Your task to perform on an android device: turn on airplane mode Image 0: 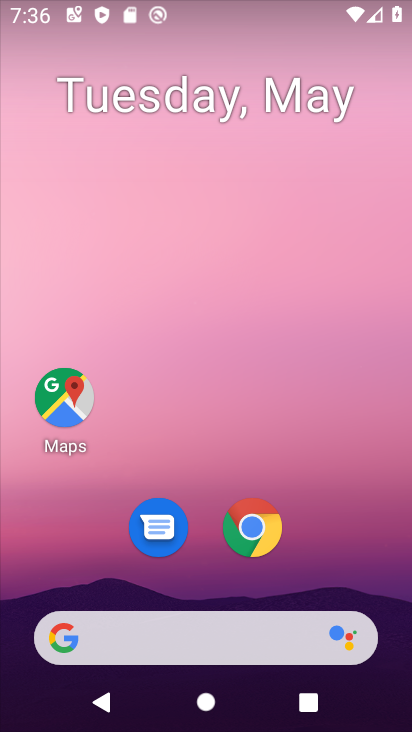
Step 0: drag from (327, 551) to (217, 165)
Your task to perform on an android device: turn on airplane mode Image 1: 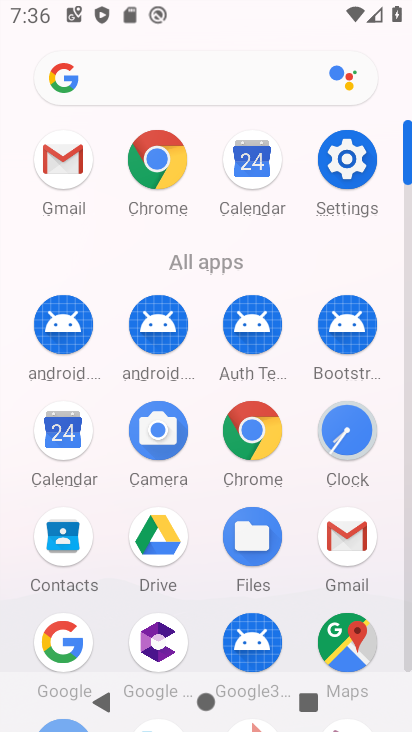
Step 1: click (345, 161)
Your task to perform on an android device: turn on airplane mode Image 2: 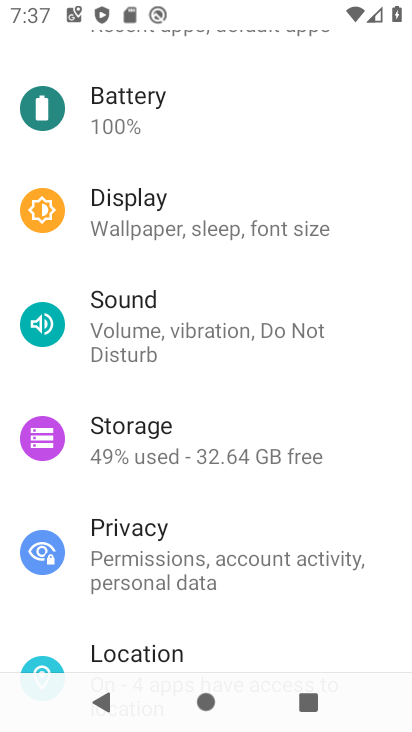
Step 2: drag from (222, 289) to (216, 383)
Your task to perform on an android device: turn on airplane mode Image 3: 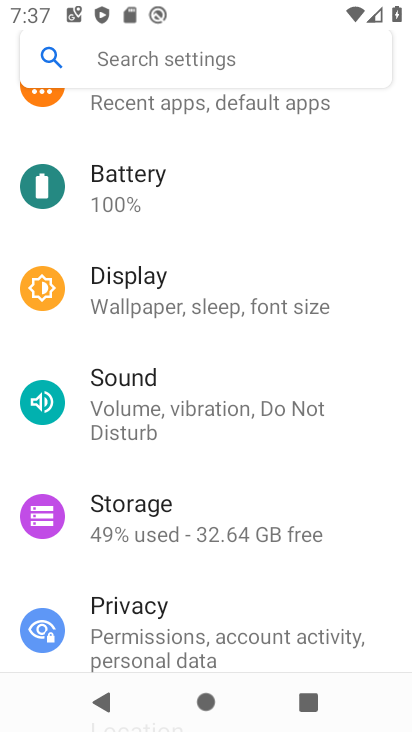
Step 3: drag from (223, 226) to (234, 328)
Your task to perform on an android device: turn on airplane mode Image 4: 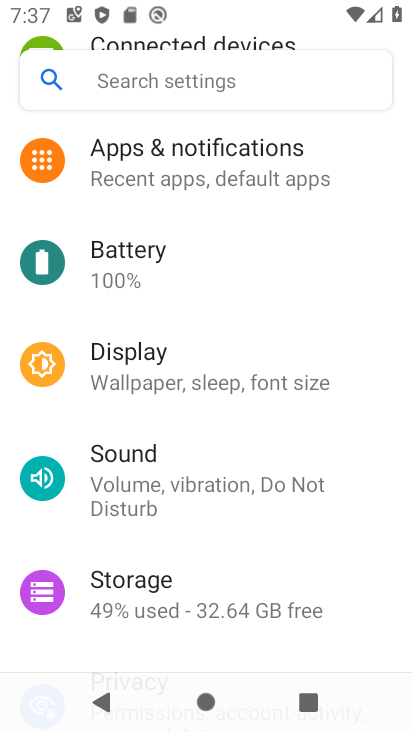
Step 4: drag from (248, 252) to (225, 349)
Your task to perform on an android device: turn on airplane mode Image 5: 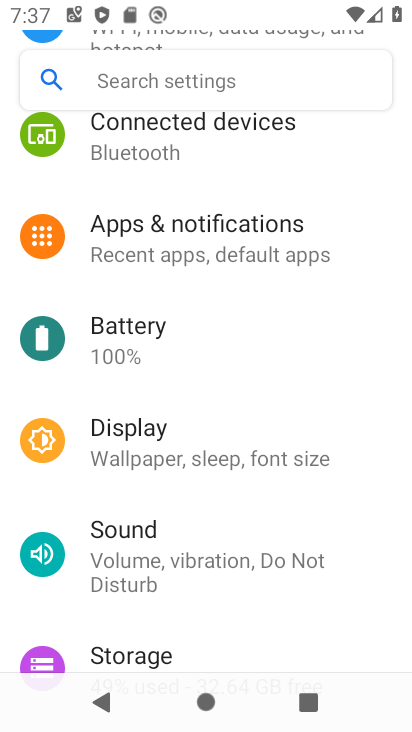
Step 5: drag from (216, 186) to (229, 320)
Your task to perform on an android device: turn on airplane mode Image 6: 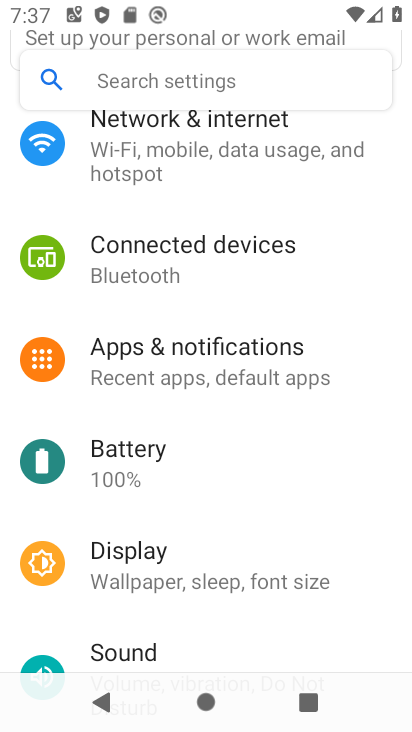
Step 6: drag from (189, 207) to (231, 312)
Your task to perform on an android device: turn on airplane mode Image 7: 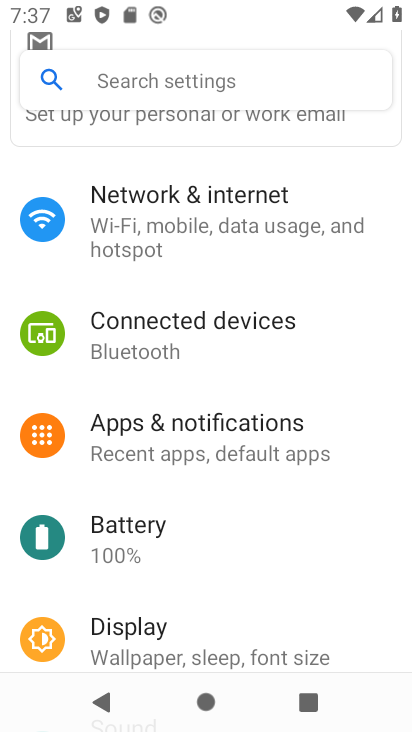
Step 7: click (235, 215)
Your task to perform on an android device: turn on airplane mode Image 8: 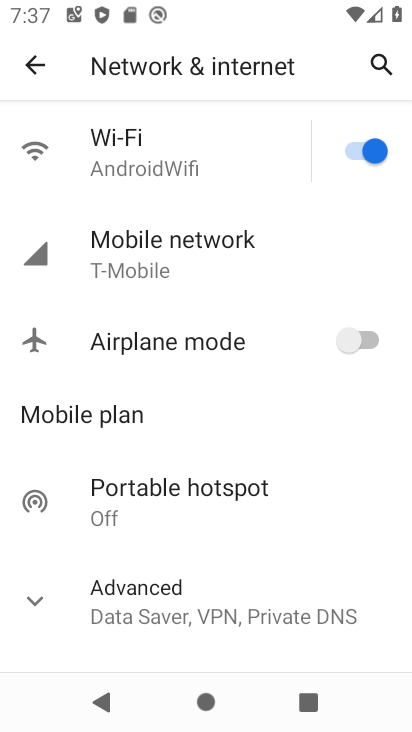
Step 8: click (337, 332)
Your task to perform on an android device: turn on airplane mode Image 9: 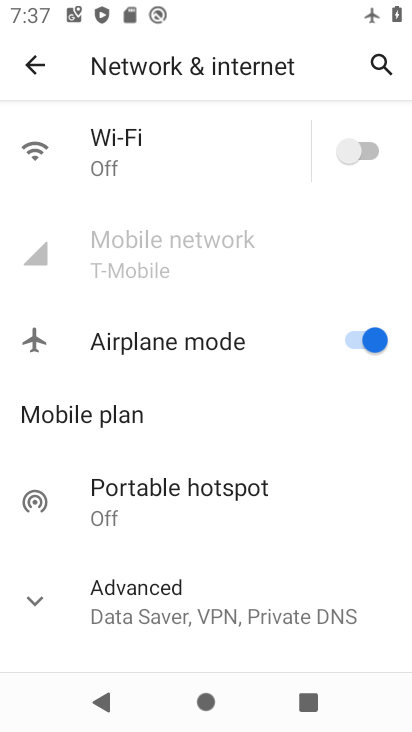
Step 9: task complete